Your task to perform on an android device: Go to Reddit.com Image 0: 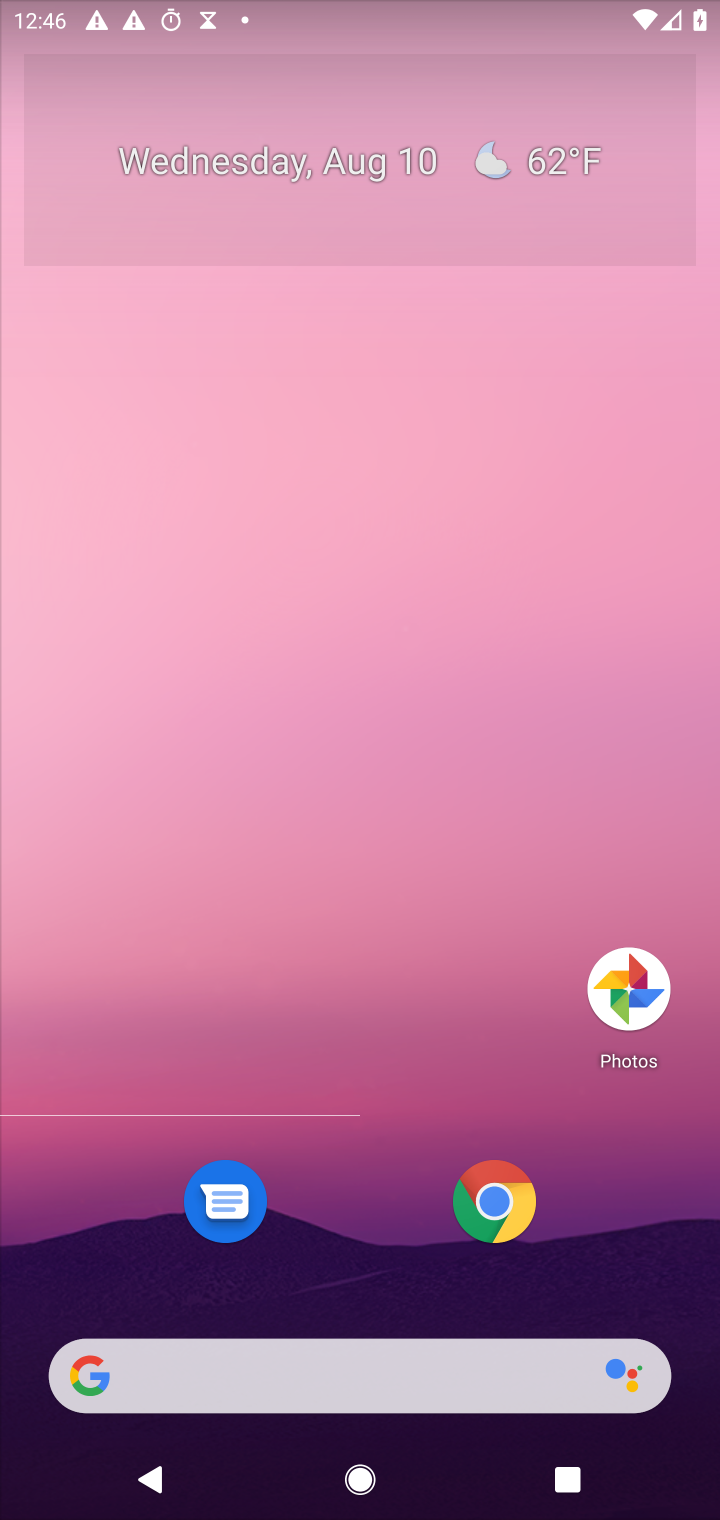
Step 0: press home button
Your task to perform on an android device: Go to Reddit.com Image 1: 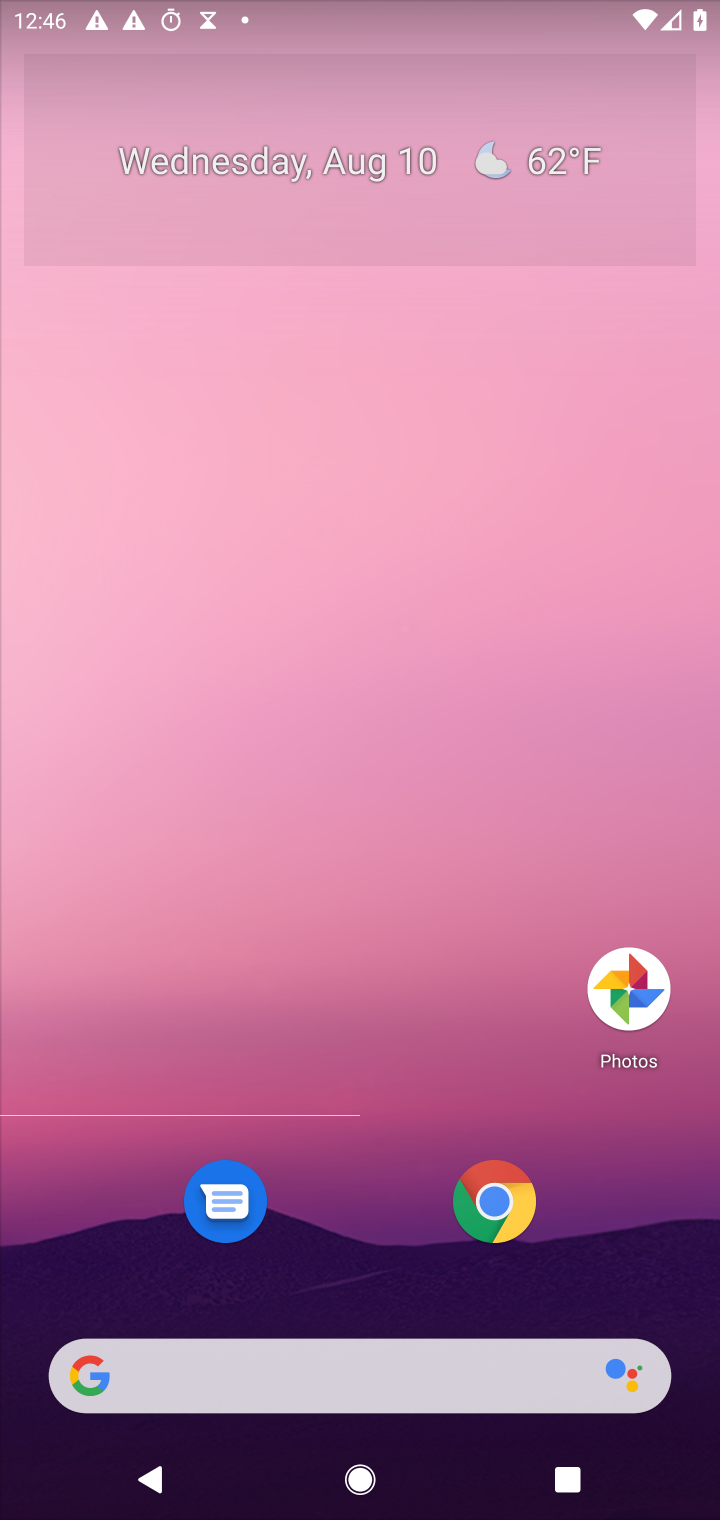
Step 1: drag from (321, 999) to (383, 107)
Your task to perform on an android device: Go to Reddit.com Image 2: 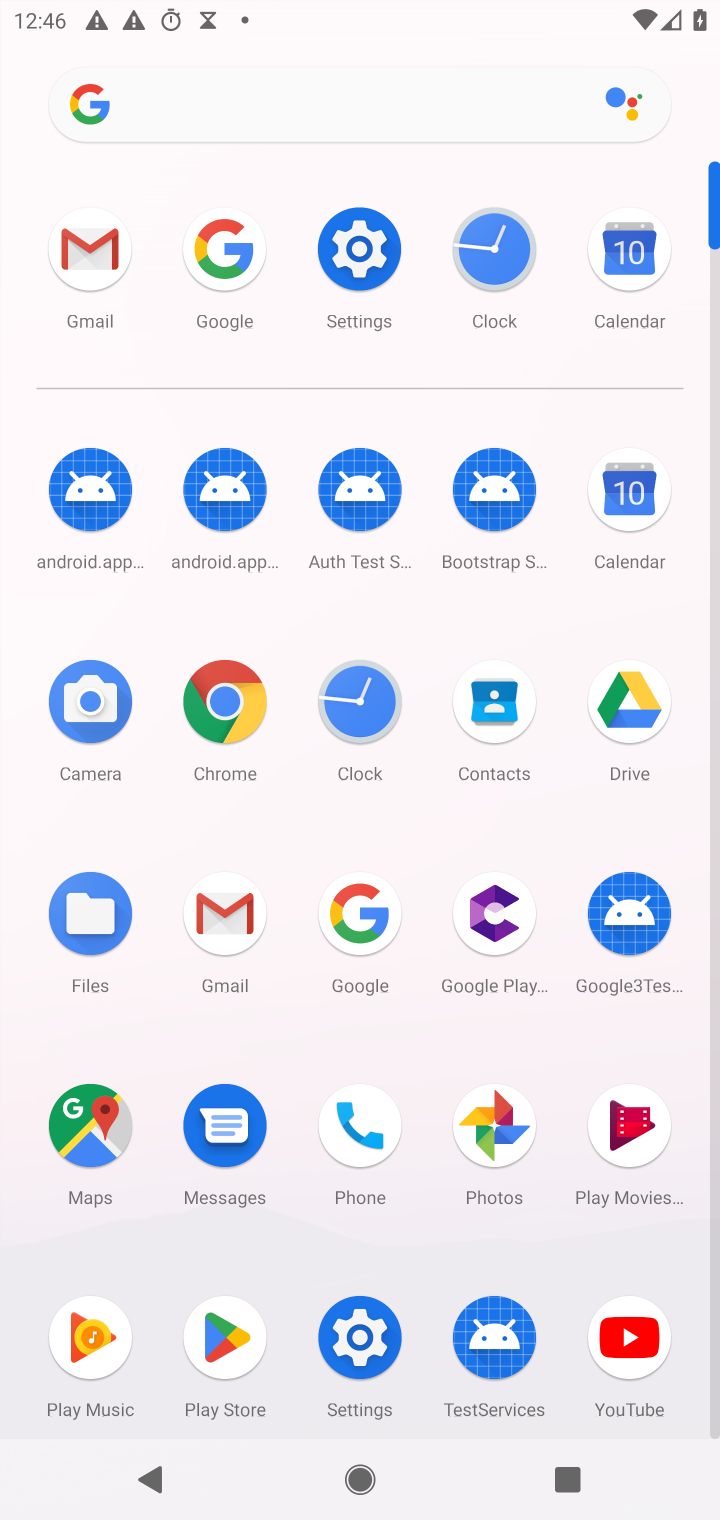
Step 2: click (218, 236)
Your task to perform on an android device: Go to Reddit.com Image 3: 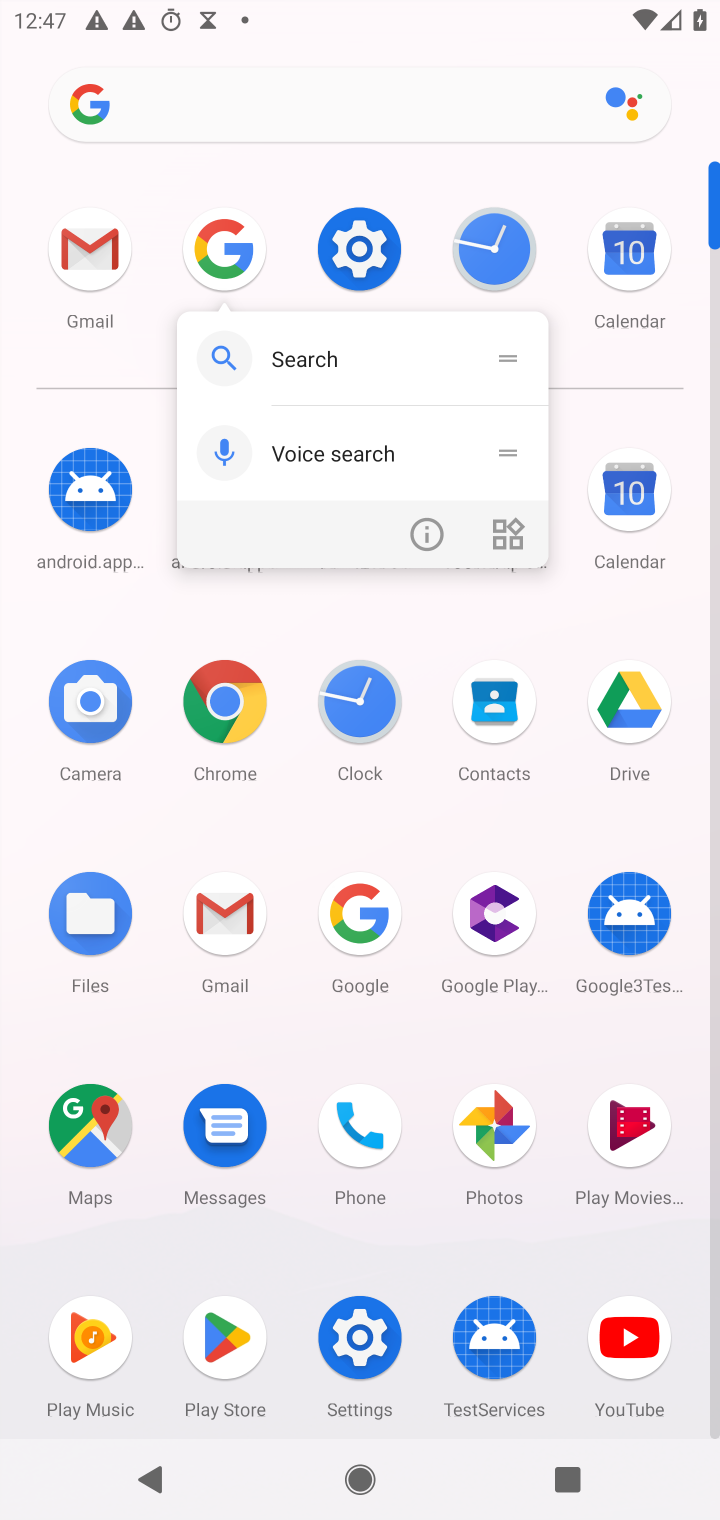
Step 3: click (229, 240)
Your task to perform on an android device: Go to Reddit.com Image 4: 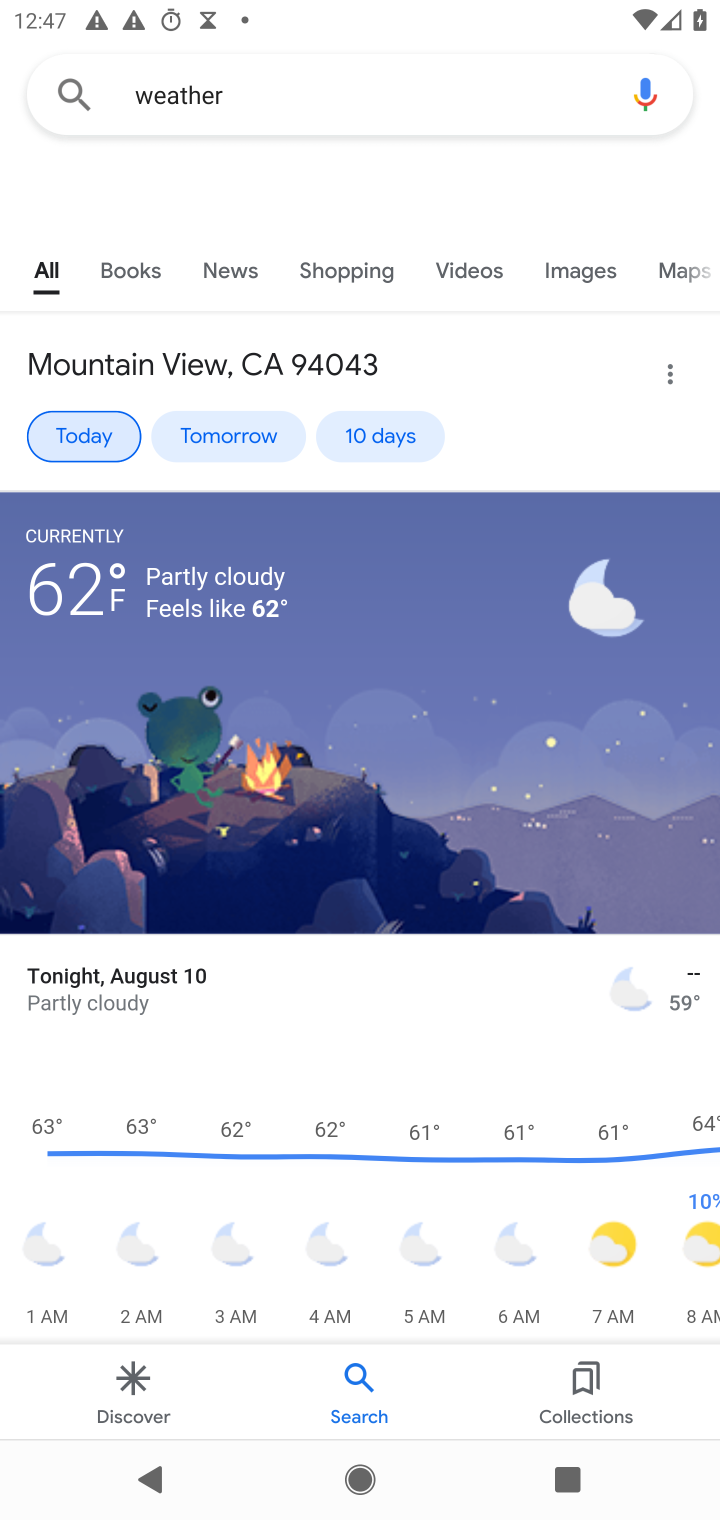
Step 4: click (292, 102)
Your task to perform on an android device: Go to Reddit.com Image 5: 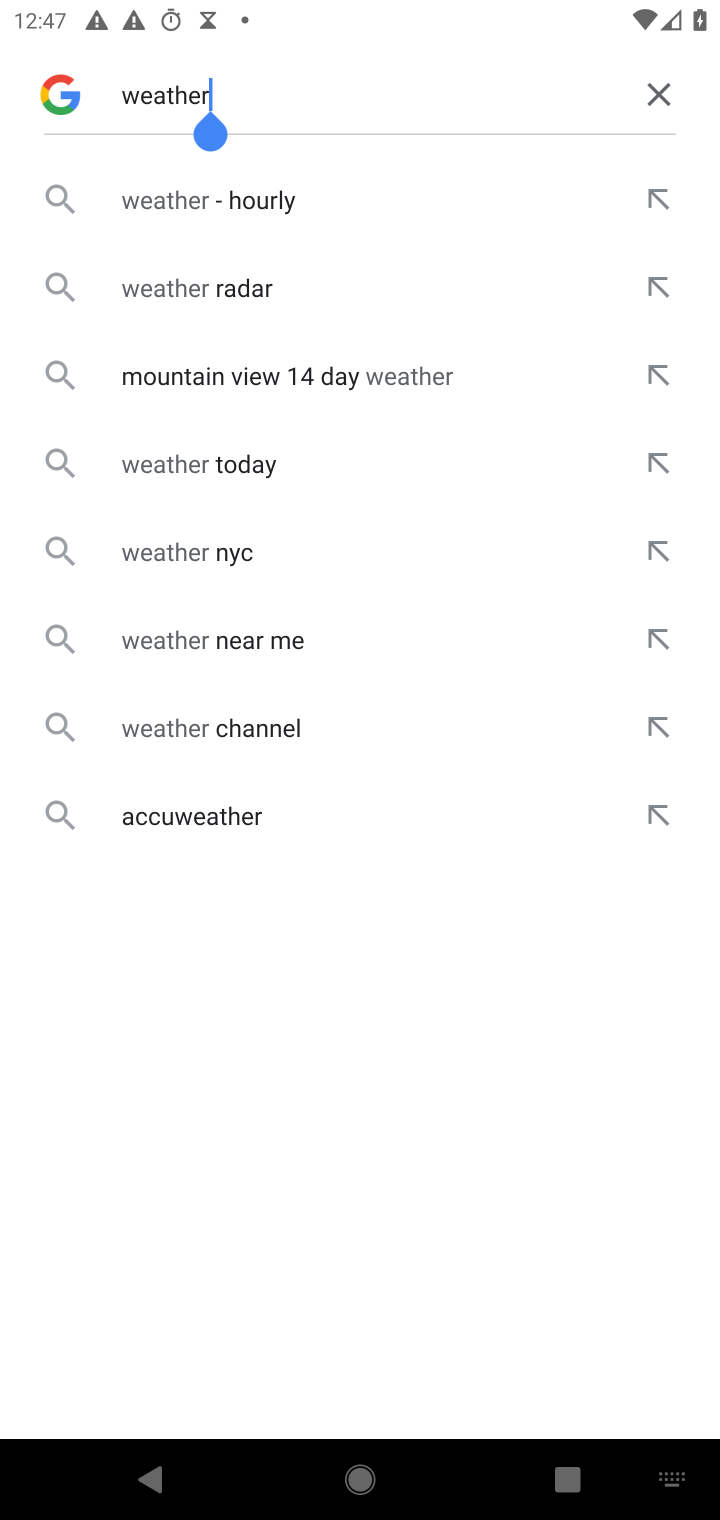
Step 5: click (658, 77)
Your task to perform on an android device: Go to Reddit.com Image 6: 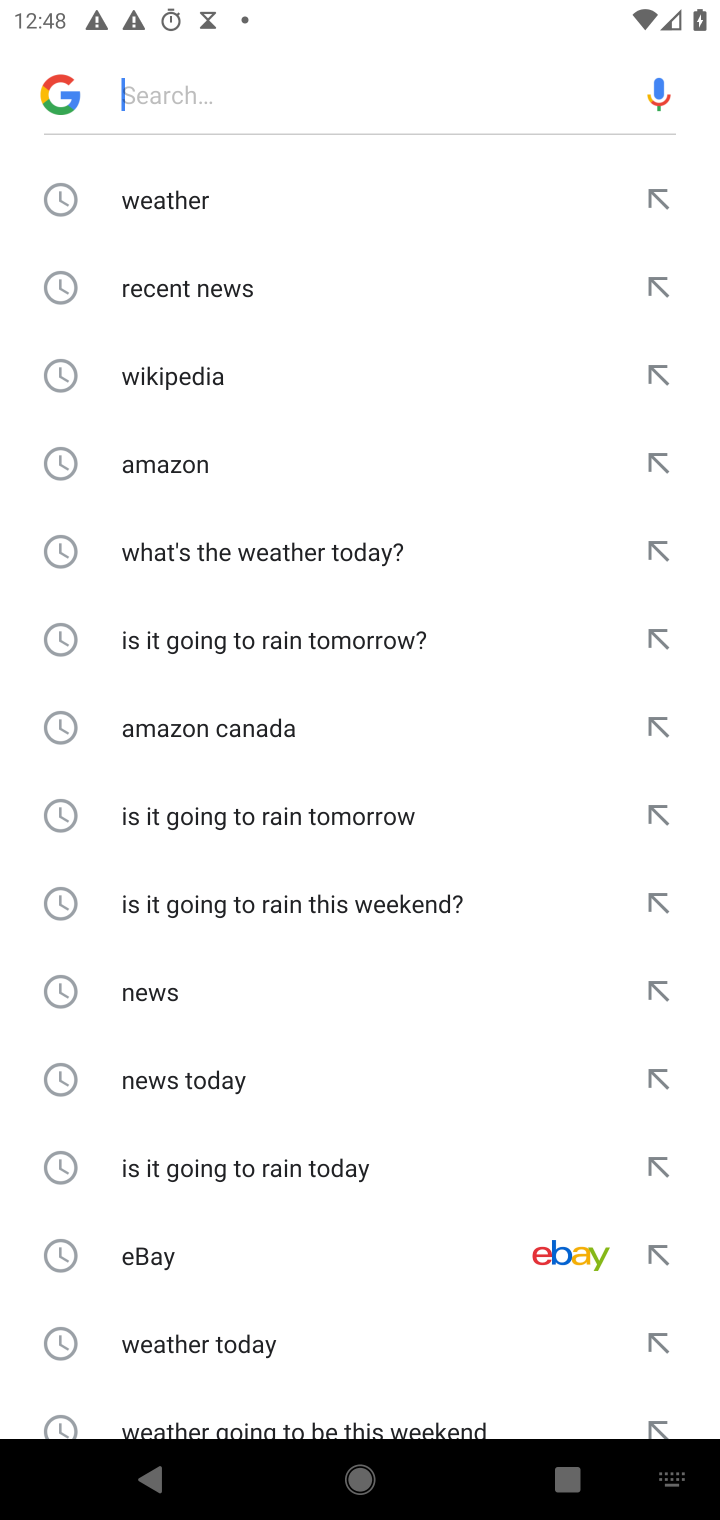
Step 6: type "Reddit.com"
Your task to perform on an android device: Go to Reddit.com Image 7: 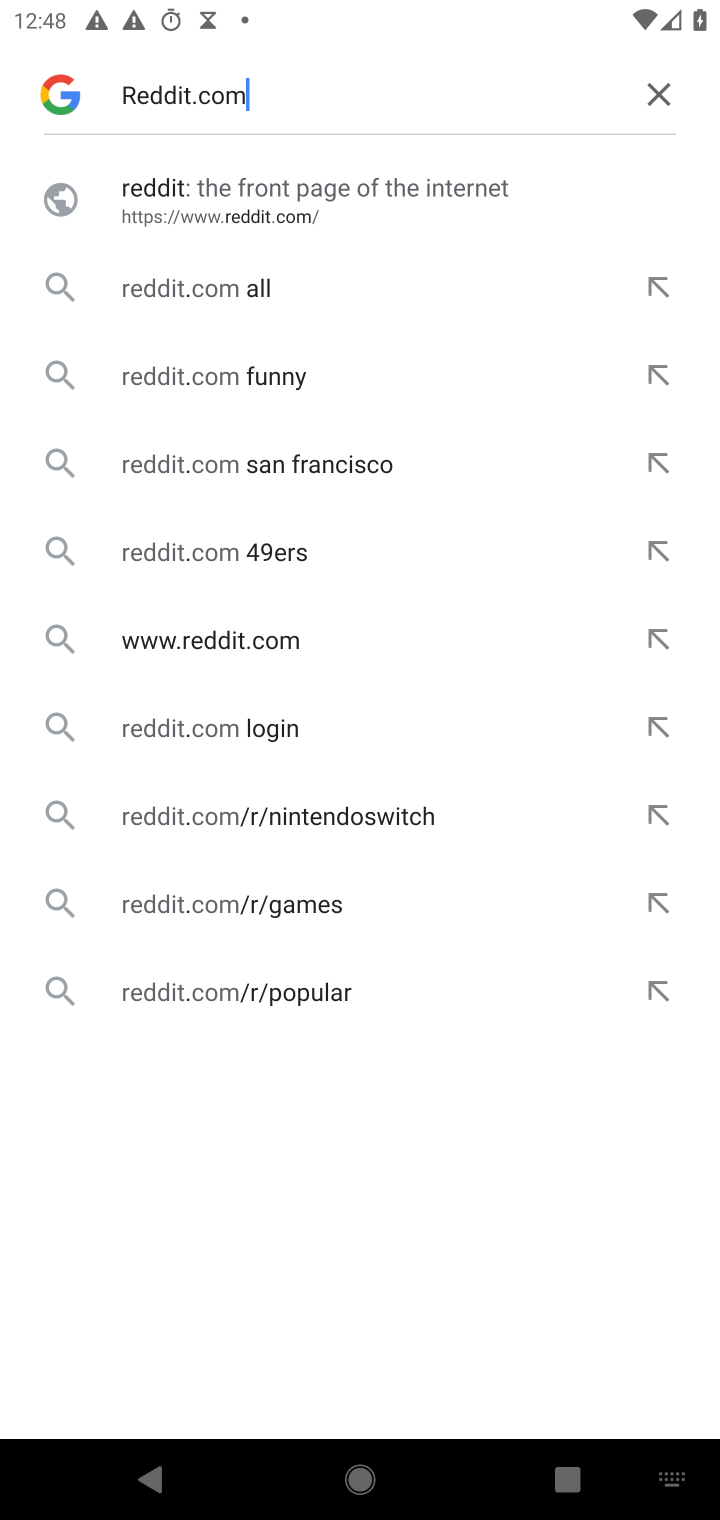
Step 7: press enter
Your task to perform on an android device: Go to Reddit.com Image 8: 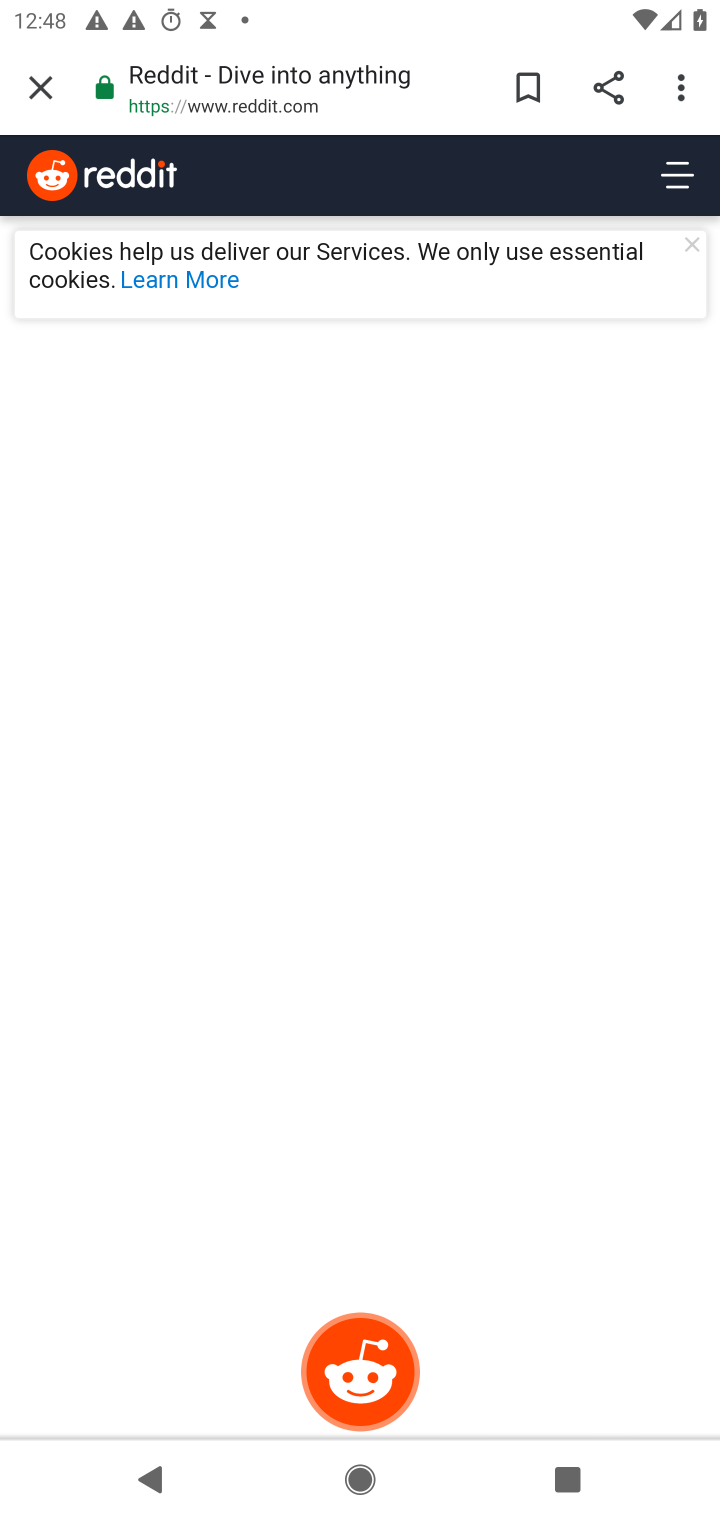
Step 8: task complete